Your task to perform on an android device: Open Reddit.com Image 0: 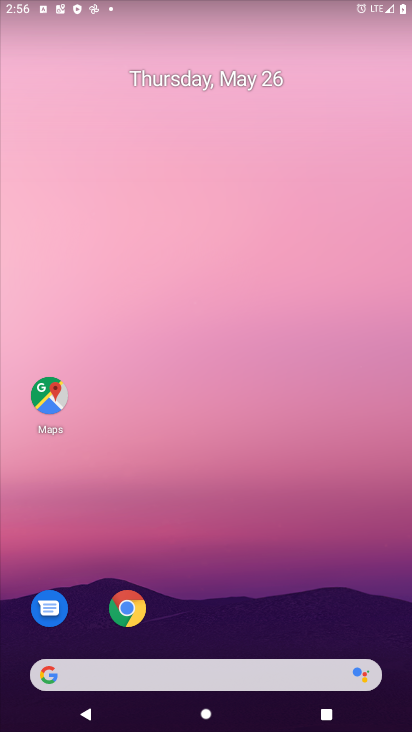
Step 0: click (126, 616)
Your task to perform on an android device: Open Reddit.com Image 1: 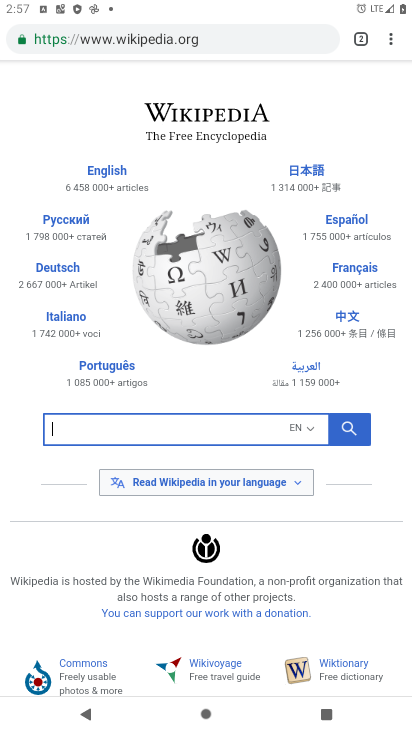
Step 1: click (220, 37)
Your task to perform on an android device: Open Reddit.com Image 2: 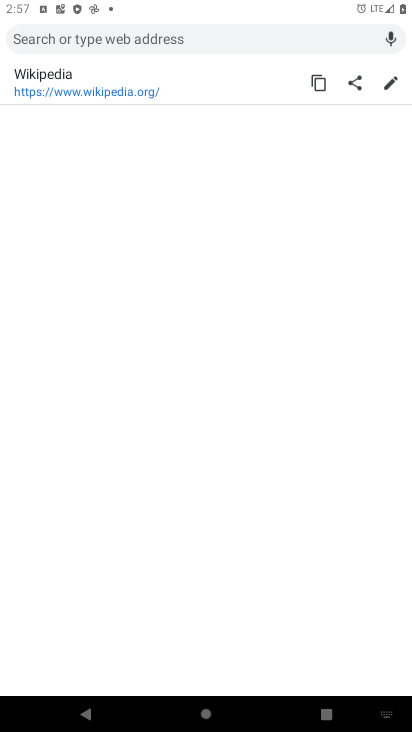
Step 2: type "reddit.com"
Your task to perform on an android device: Open Reddit.com Image 3: 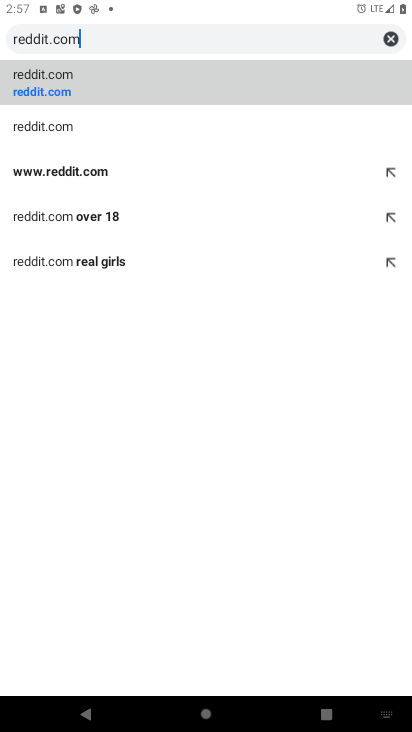
Step 3: click (46, 76)
Your task to perform on an android device: Open Reddit.com Image 4: 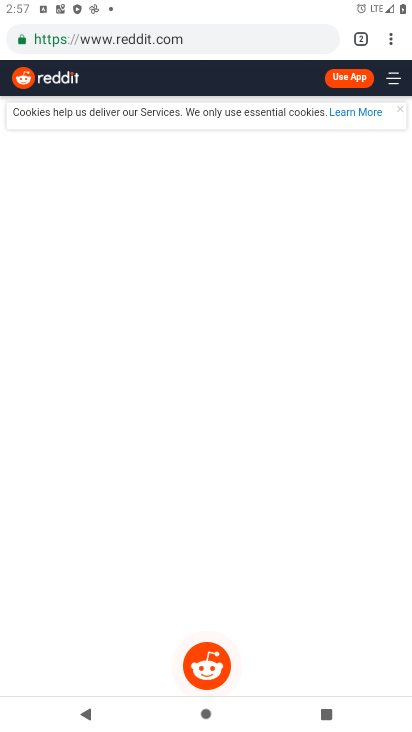
Step 4: task complete